Your task to perform on an android device: Open privacy settings Image 0: 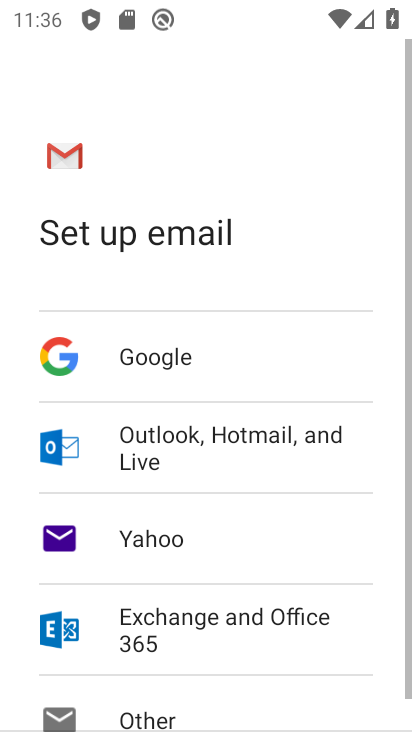
Step 0: press home button
Your task to perform on an android device: Open privacy settings Image 1: 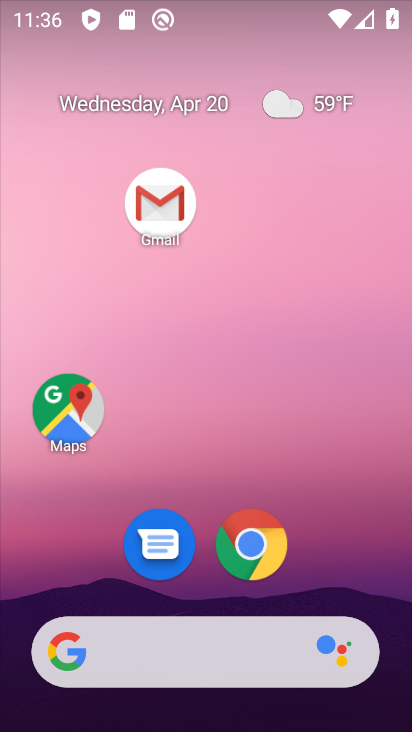
Step 1: drag from (297, 598) to (331, 156)
Your task to perform on an android device: Open privacy settings Image 2: 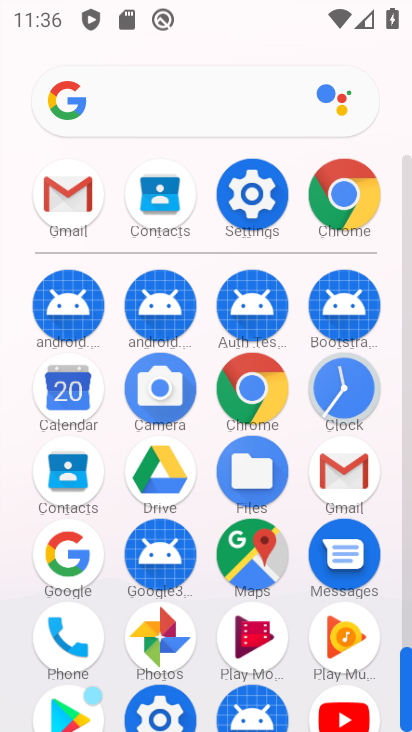
Step 2: click (271, 202)
Your task to perform on an android device: Open privacy settings Image 3: 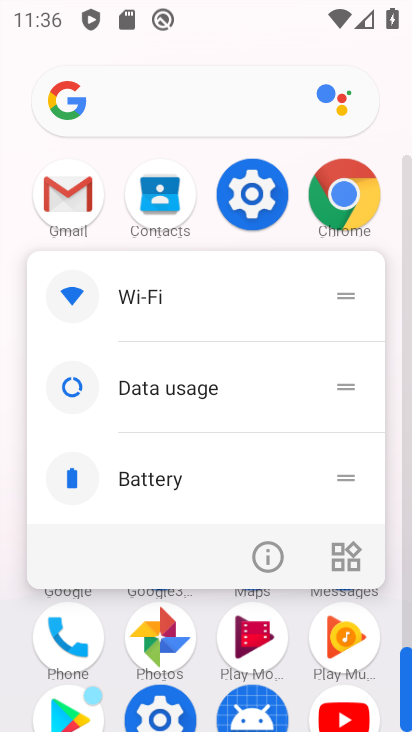
Step 3: click (271, 202)
Your task to perform on an android device: Open privacy settings Image 4: 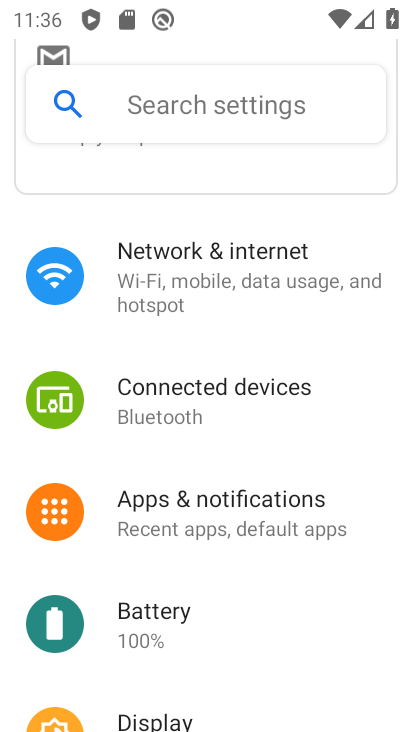
Step 4: drag from (279, 523) to (293, 109)
Your task to perform on an android device: Open privacy settings Image 5: 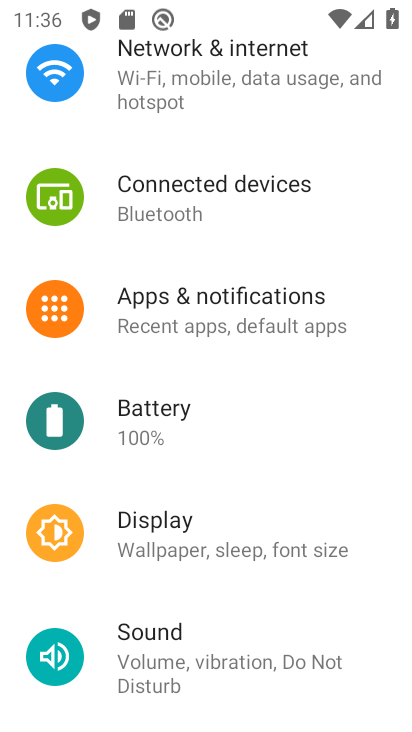
Step 5: drag from (261, 510) to (341, 119)
Your task to perform on an android device: Open privacy settings Image 6: 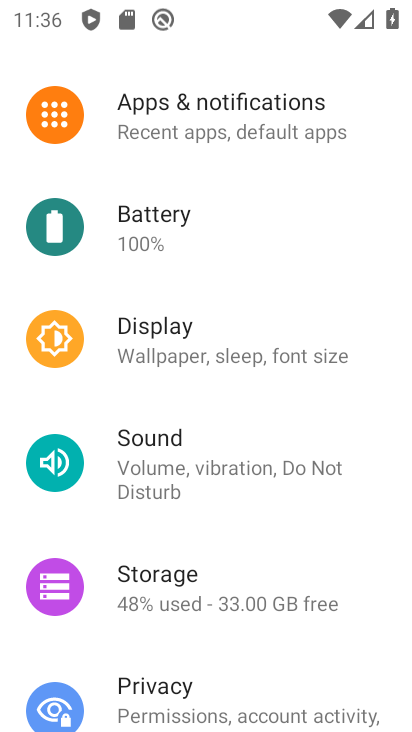
Step 6: click (249, 686)
Your task to perform on an android device: Open privacy settings Image 7: 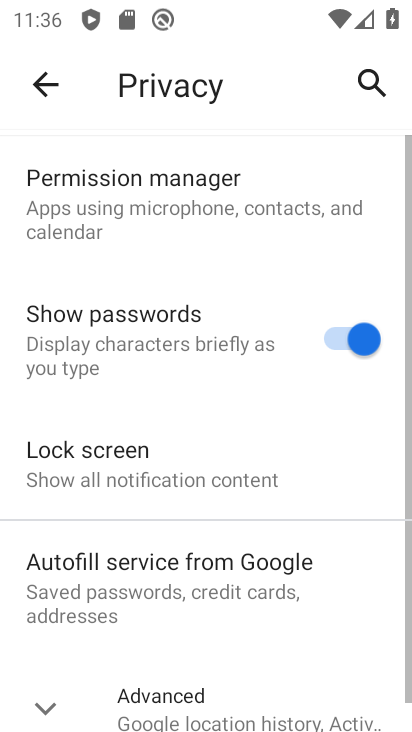
Step 7: task complete